Your task to perform on an android device: See recent photos Image 0: 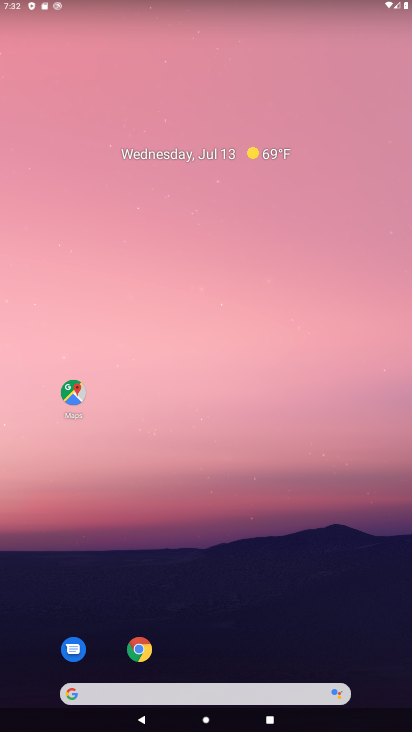
Step 0: drag from (193, 633) to (233, 430)
Your task to perform on an android device: See recent photos Image 1: 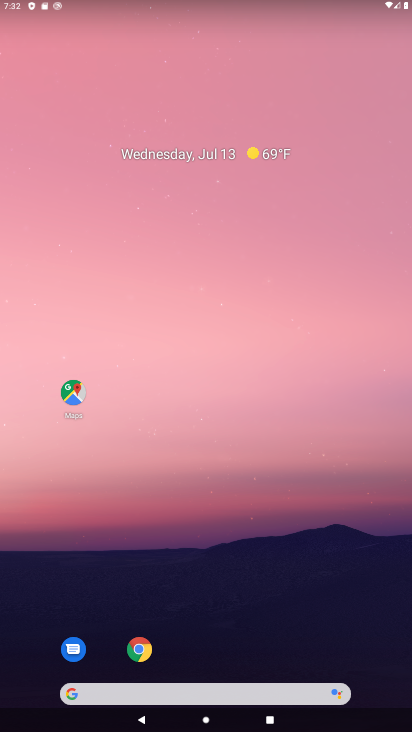
Step 1: drag from (225, 583) to (256, 320)
Your task to perform on an android device: See recent photos Image 2: 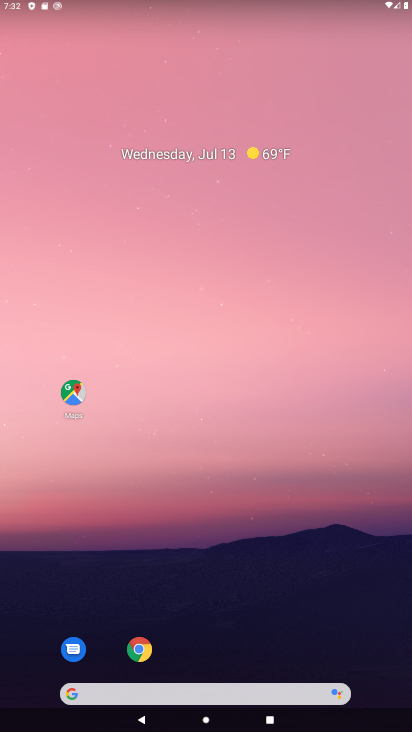
Step 2: drag from (240, 644) to (282, 274)
Your task to perform on an android device: See recent photos Image 3: 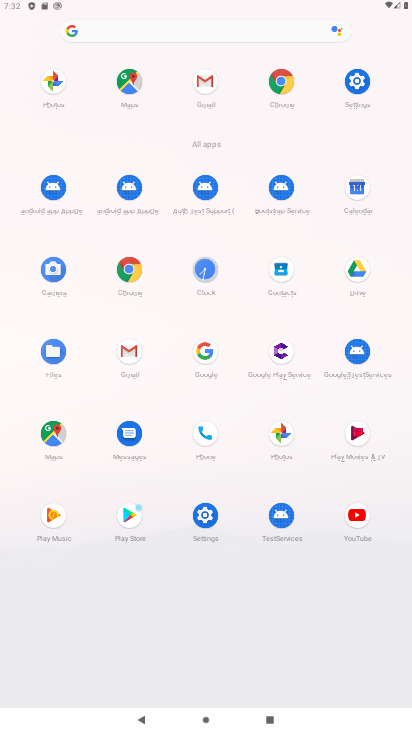
Step 3: click (278, 435)
Your task to perform on an android device: See recent photos Image 4: 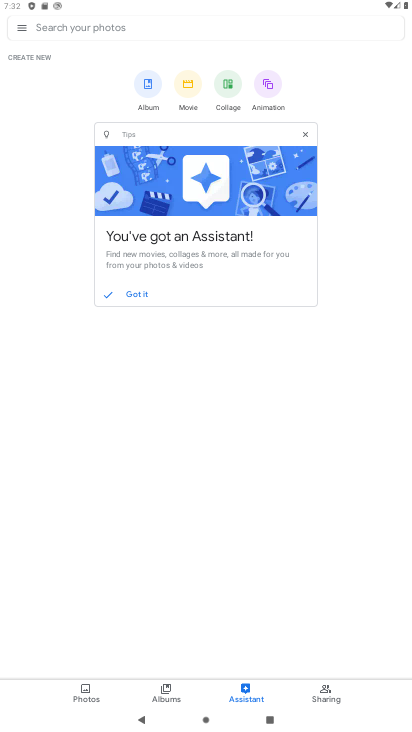
Step 4: click (82, 695)
Your task to perform on an android device: See recent photos Image 5: 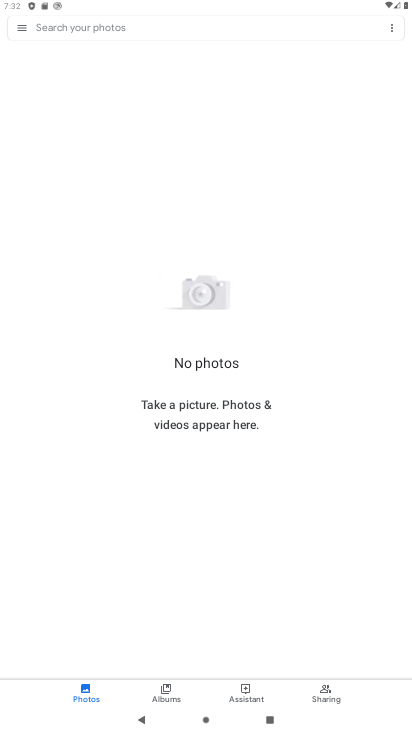
Step 5: task complete